Your task to perform on an android device: Go to internet settings Image 0: 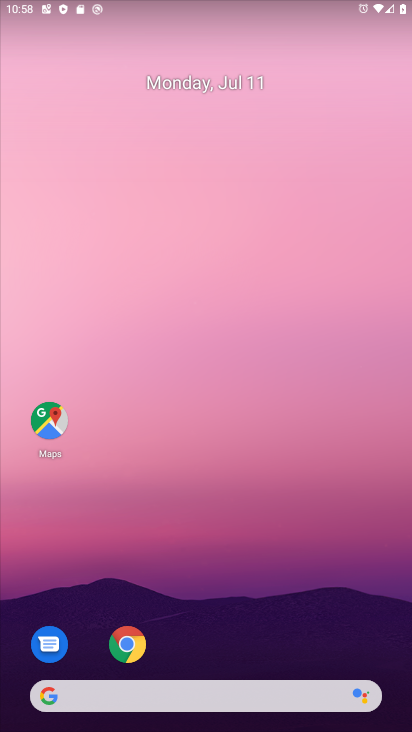
Step 0: press home button
Your task to perform on an android device: Go to internet settings Image 1: 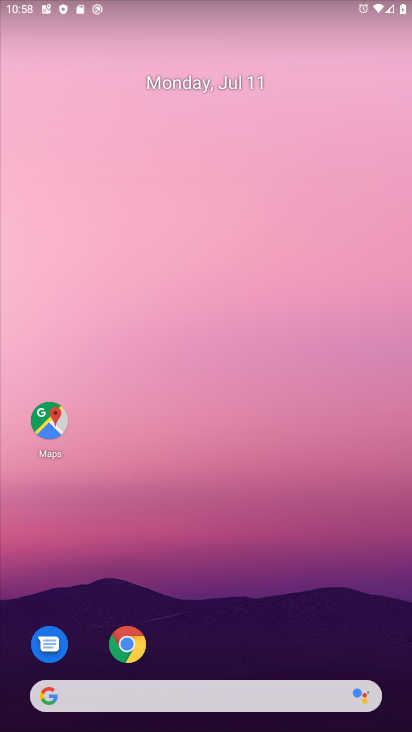
Step 1: press home button
Your task to perform on an android device: Go to internet settings Image 2: 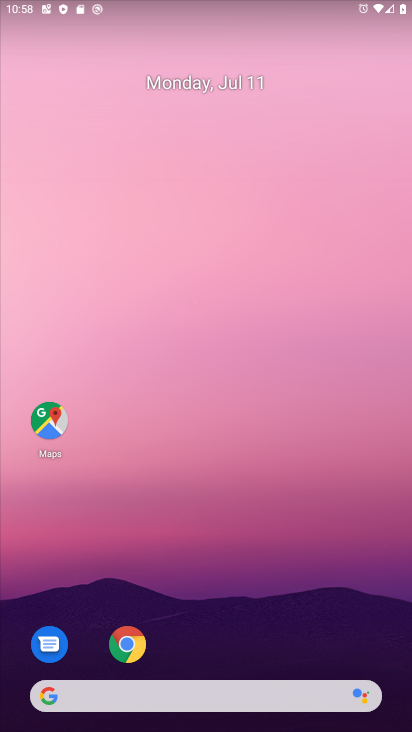
Step 2: drag from (228, 655) to (274, 28)
Your task to perform on an android device: Go to internet settings Image 3: 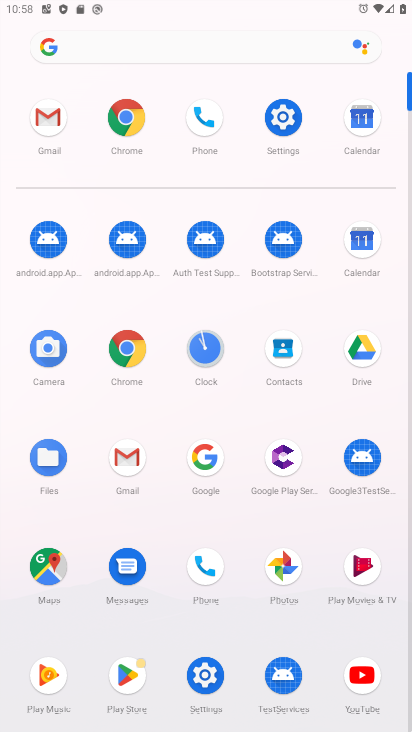
Step 3: click (282, 110)
Your task to perform on an android device: Go to internet settings Image 4: 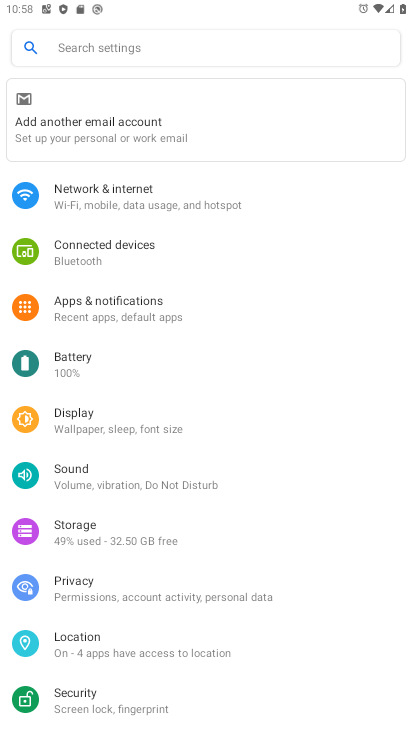
Step 4: click (166, 186)
Your task to perform on an android device: Go to internet settings Image 5: 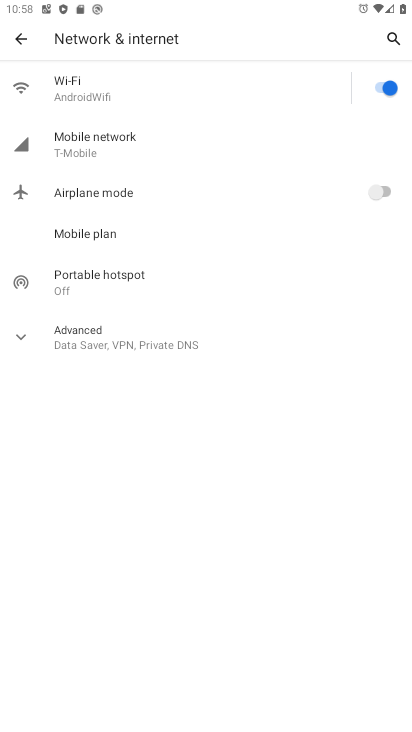
Step 5: click (20, 329)
Your task to perform on an android device: Go to internet settings Image 6: 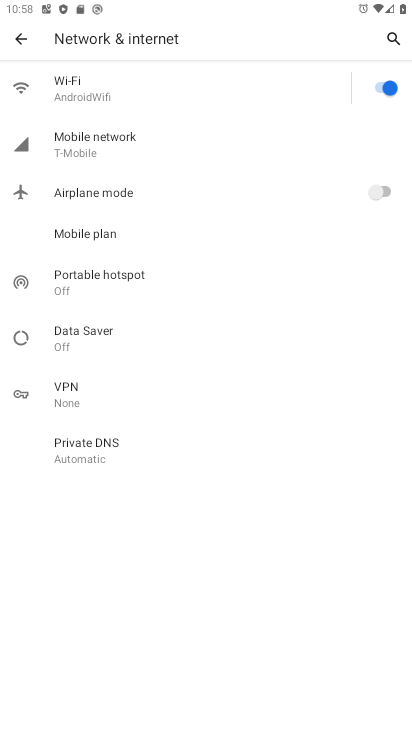
Step 6: task complete